Your task to perform on an android device: Open settings on Google Maps Image 0: 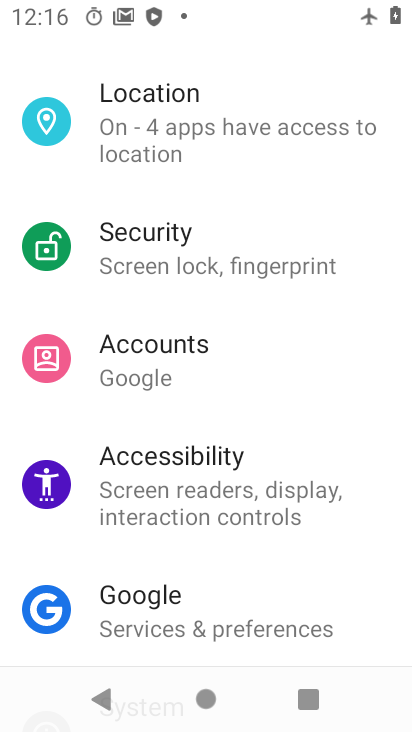
Step 0: press home button
Your task to perform on an android device: Open settings on Google Maps Image 1: 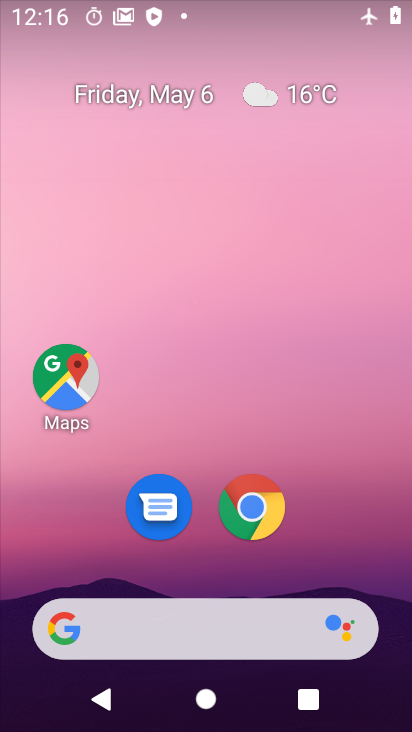
Step 1: drag from (219, 731) to (214, 211)
Your task to perform on an android device: Open settings on Google Maps Image 2: 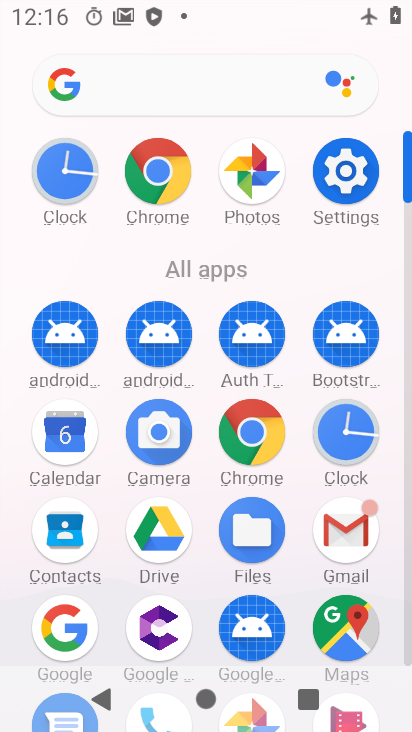
Step 2: click (335, 621)
Your task to perform on an android device: Open settings on Google Maps Image 3: 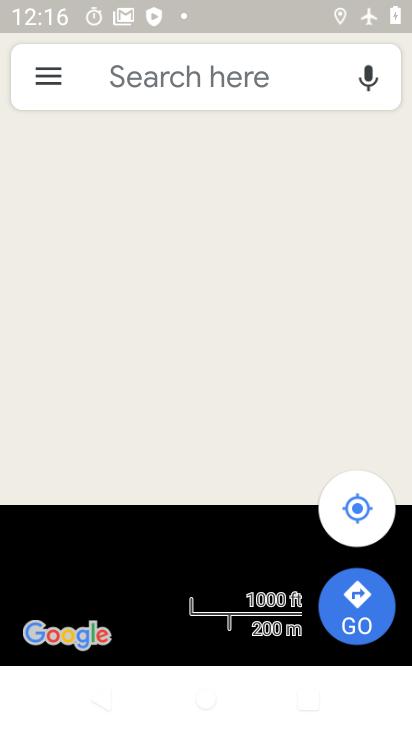
Step 3: click (43, 75)
Your task to perform on an android device: Open settings on Google Maps Image 4: 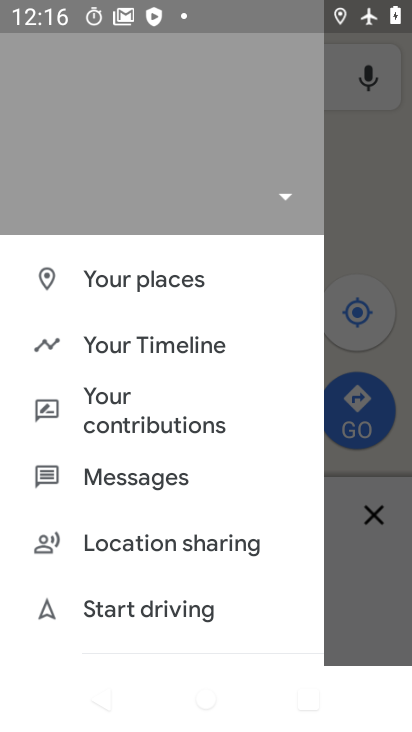
Step 4: drag from (115, 594) to (111, 269)
Your task to perform on an android device: Open settings on Google Maps Image 5: 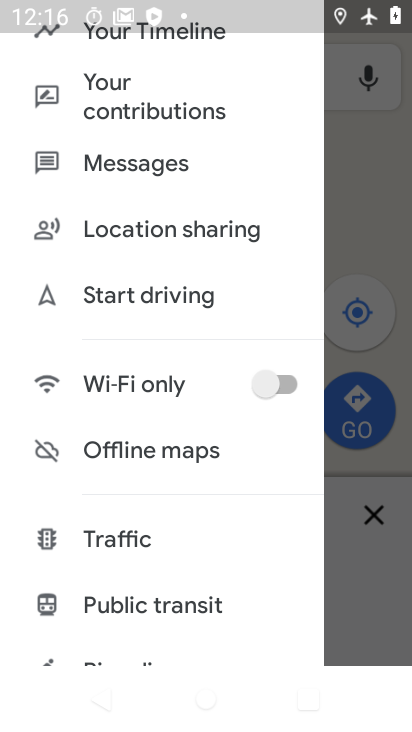
Step 5: drag from (130, 641) to (128, 354)
Your task to perform on an android device: Open settings on Google Maps Image 6: 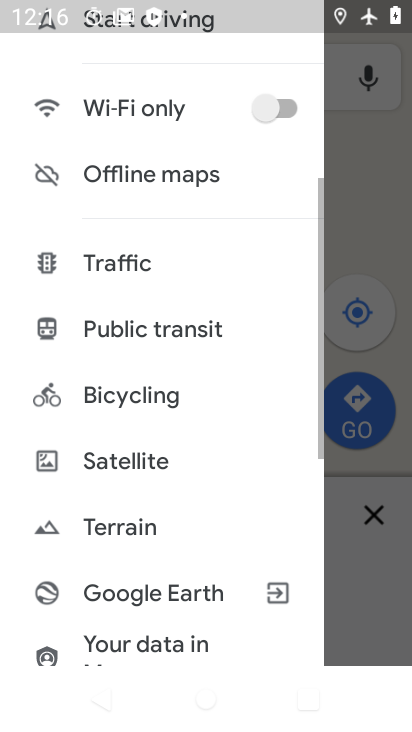
Step 6: drag from (129, 663) to (122, 167)
Your task to perform on an android device: Open settings on Google Maps Image 7: 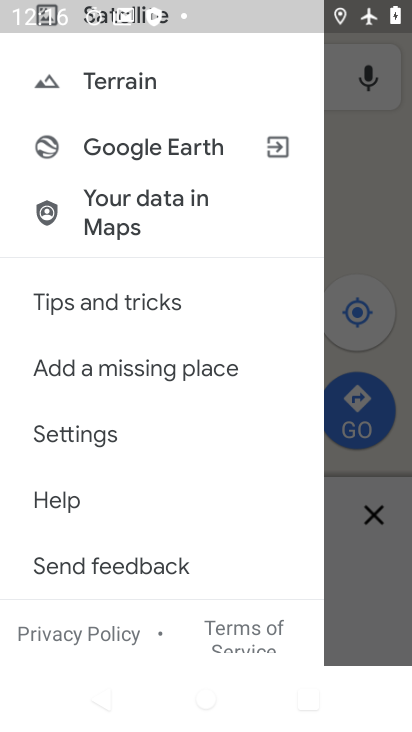
Step 7: click (83, 431)
Your task to perform on an android device: Open settings on Google Maps Image 8: 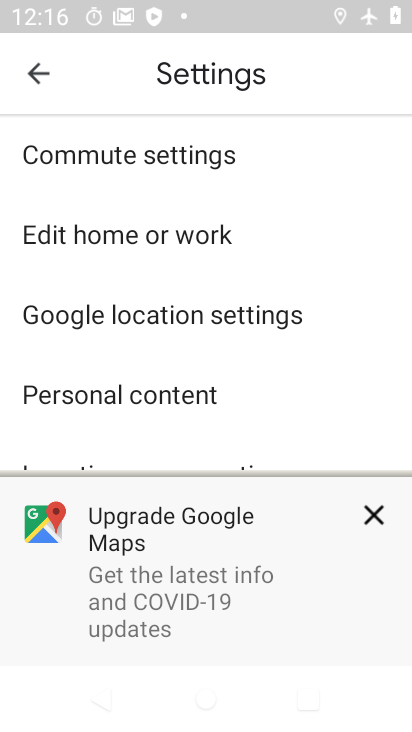
Step 8: task complete